Your task to perform on an android device: Go to privacy settings Image 0: 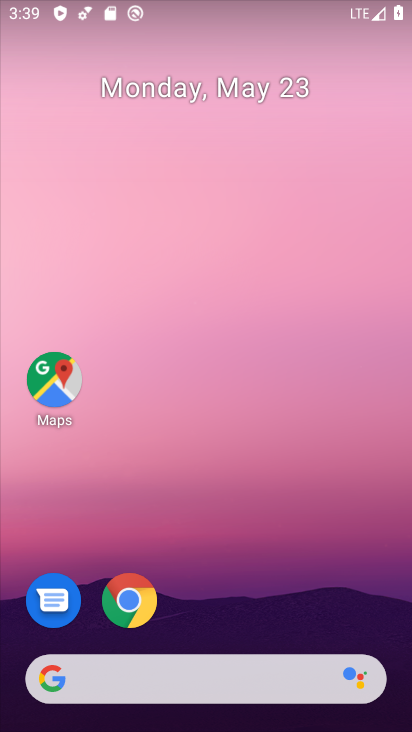
Step 0: drag from (236, 645) to (244, 7)
Your task to perform on an android device: Go to privacy settings Image 1: 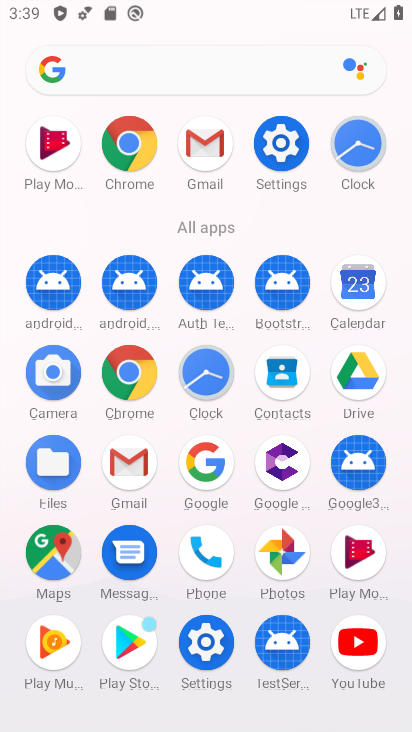
Step 1: click (277, 146)
Your task to perform on an android device: Go to privacy settings Image 2: 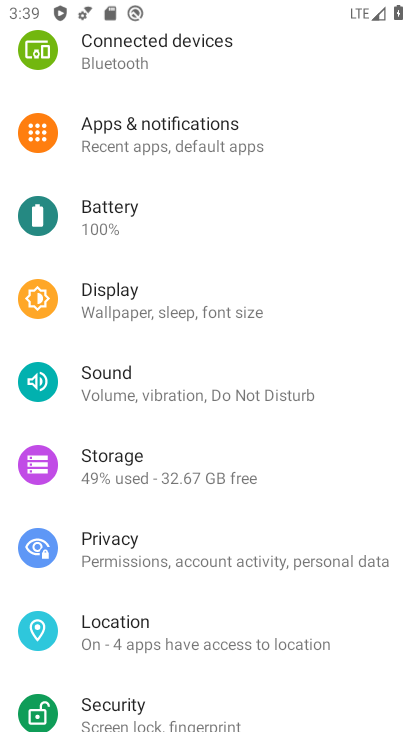
Step 2: click (120, 551)
Your task to perform on an android device: Go to privacy settings Image 3: 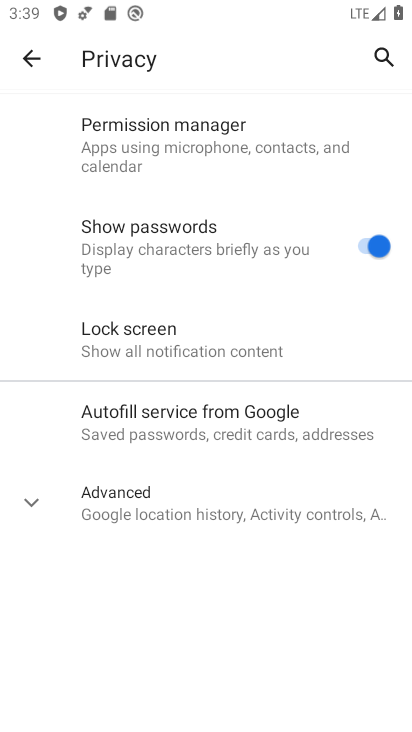
Step 3: task complete